Your task to perform on an android device: Go to Amazon Image 0: 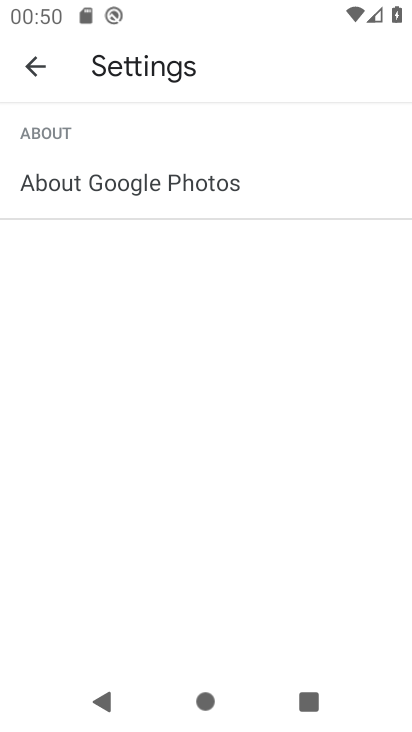
Step 0: press home button
Your task to perform on an android device: Go to Amazon Image 1: 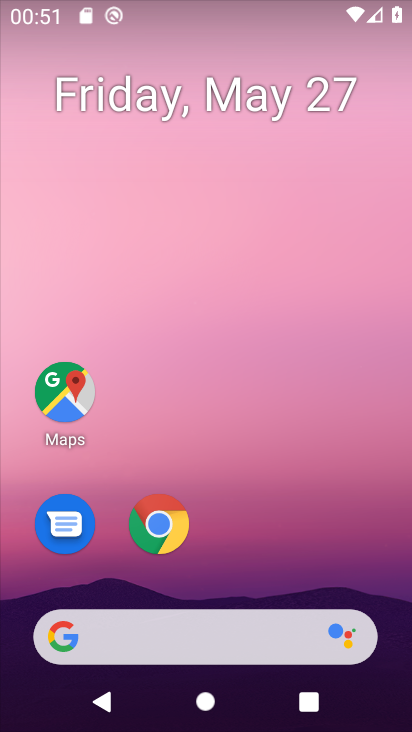
Step 1: click (170, 513)
Your task to perform on an android device: Go to Amazon Image 2: 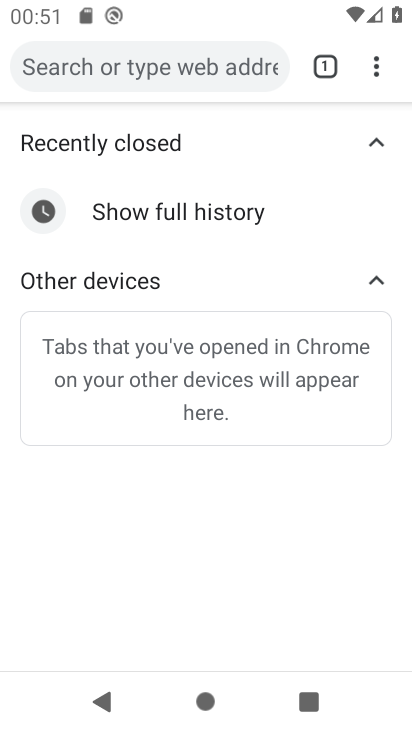
Step 2: click (377, 63)
Your task to perform on an android device: Go to Amazon Image 3: 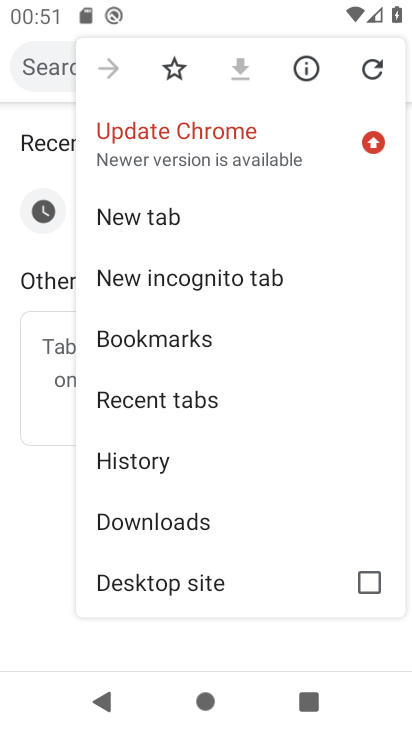
Step 3: click (228, 210)
Your task to perform on an android device: Go to Amazon Image 4: 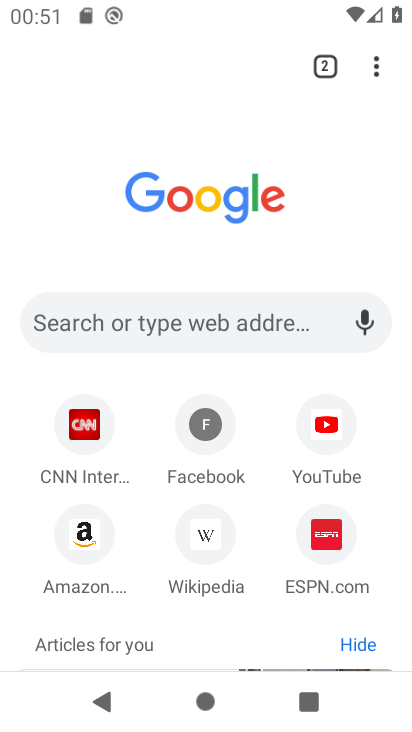
Step 4: click (88, 534)
Your task to perform on an android device: Go to Amazon Image 5: 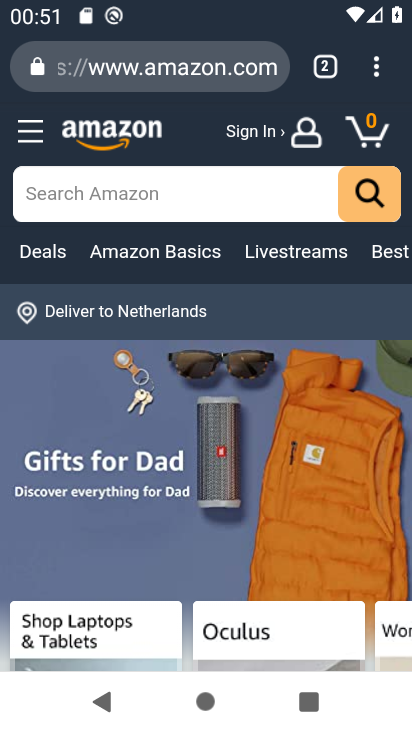
Step 5: task complete